Your task to perform on an android device: see tabs open on other devices in the chrome app Image 0: 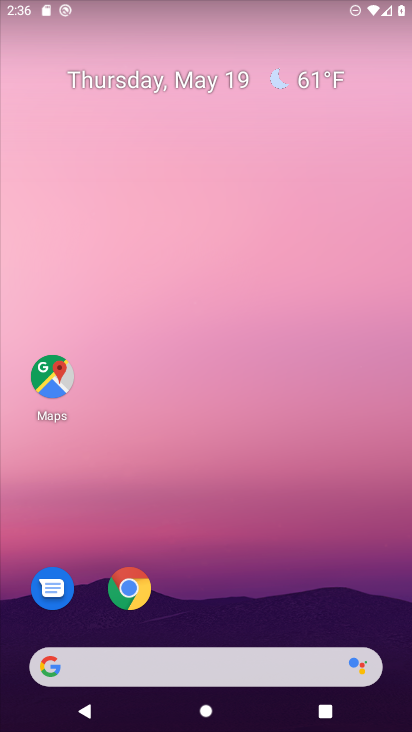
Step 0: click (130, 589)
Your task to perform on an android device: see tabs open on other devices in the chrome app Image 1: 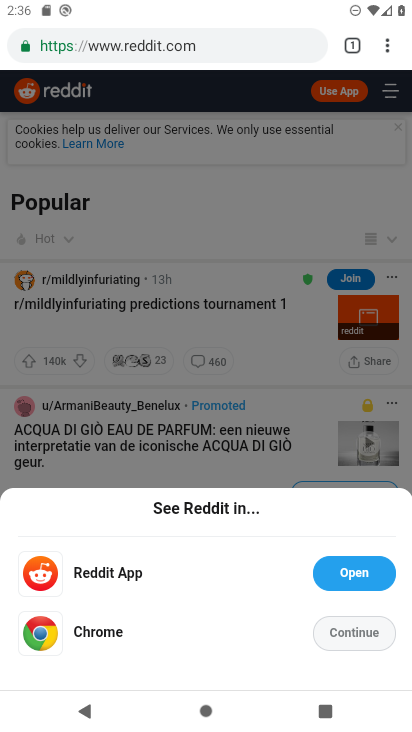
Step 1: click (130, 589)
Your task to perform on an android device: see tabs open on other devices in the chrome app Image 2: 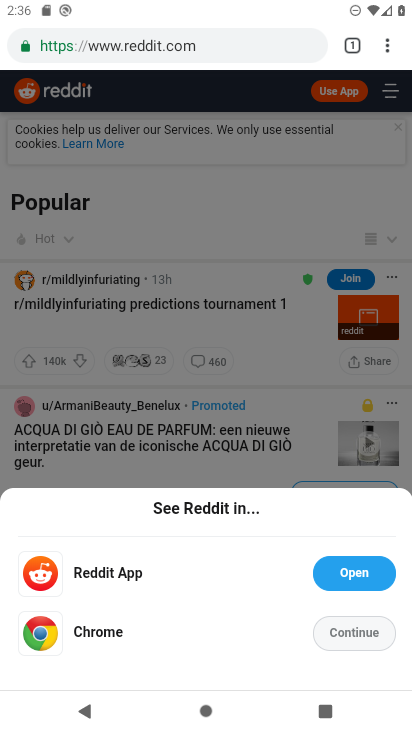
Step 2: task complete